Your task to perform on an android device: toggle translation in the chrome app Image 0: 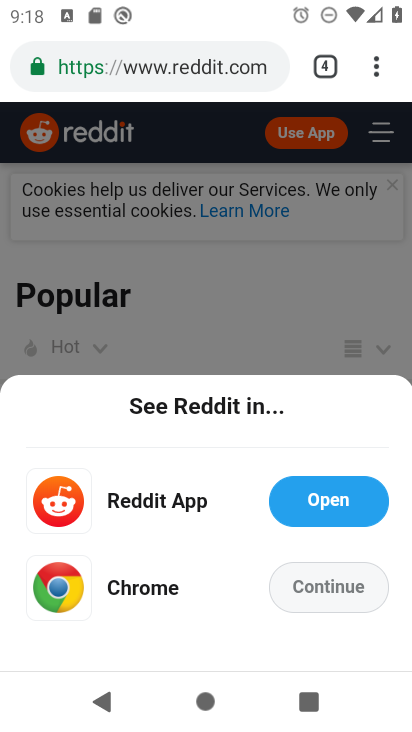
Step 0: press home button
Your task to perform on an android device: toggle translation in the chrome app Image 1: 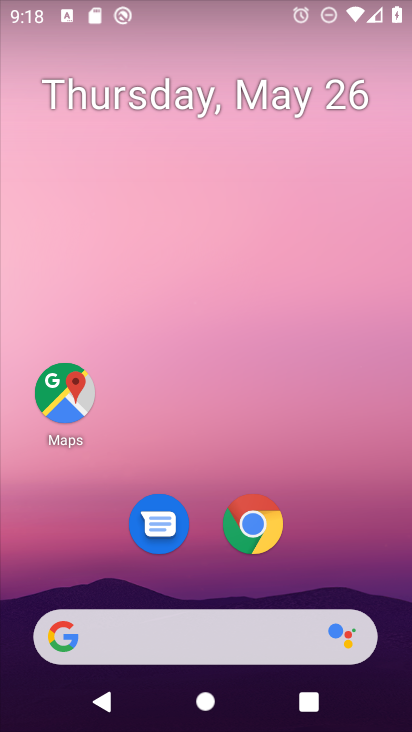
Step 1: click (254, 522)
Your task to perform on an android device: toggle translation in the chrome app Image 2: 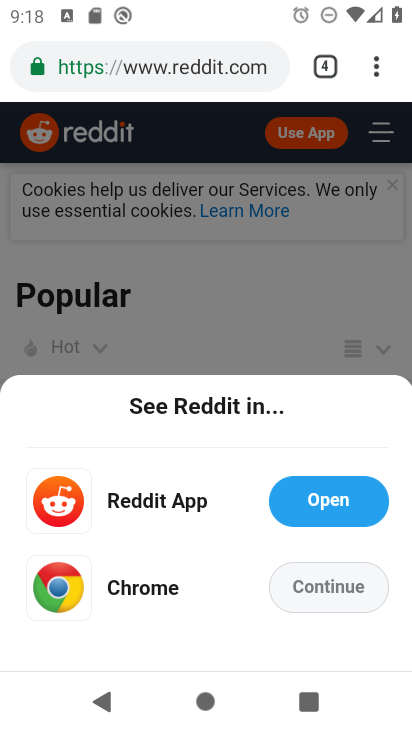
Step 2: click (373, 70)
Your task to perform on an android device: toggle translation in the chrome app Image 3: 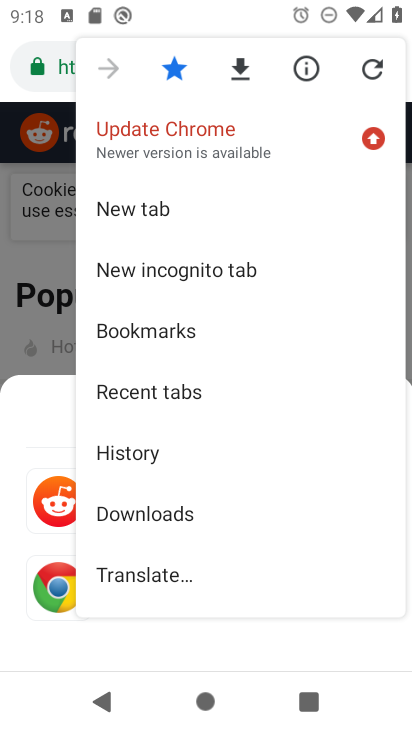
Step 3: drag from (189, 535) to (215, 202)
Your task to perform on an android device: toggle translation in the chrome app Image 4: 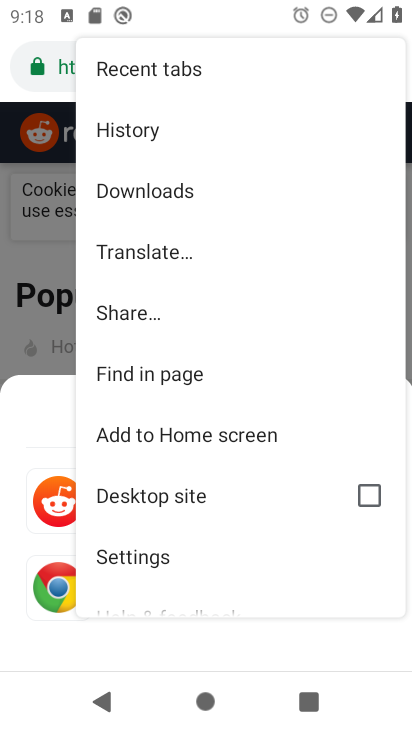
Step 4: click (160, 552)
Your task to perform on an android device: toggle translation in the chrome app Image 5: 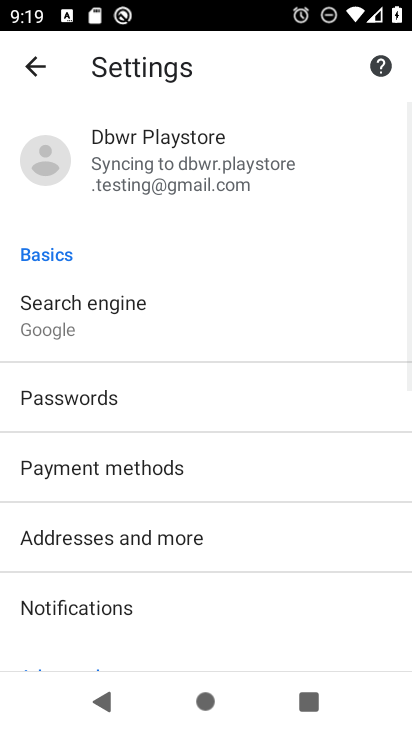
Step 5: drag from (231, 519) to (259, 160)
Your task to perform on an android device: toggle translation in the chrome app Image 6: 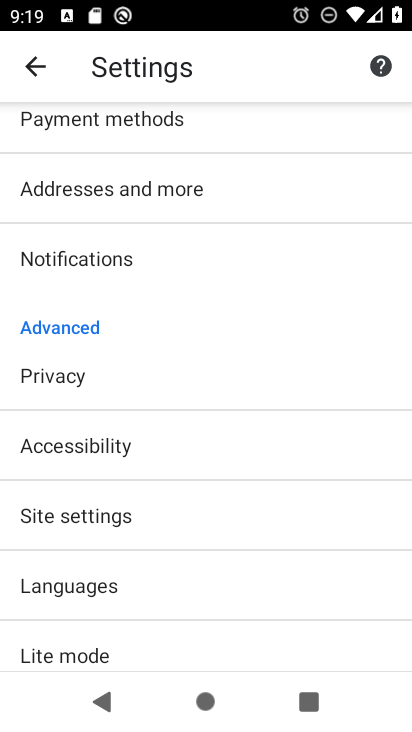
Step 6: click (192, 574)
Your task to perform on an android device: toggle translation in the chrome app Image 7: 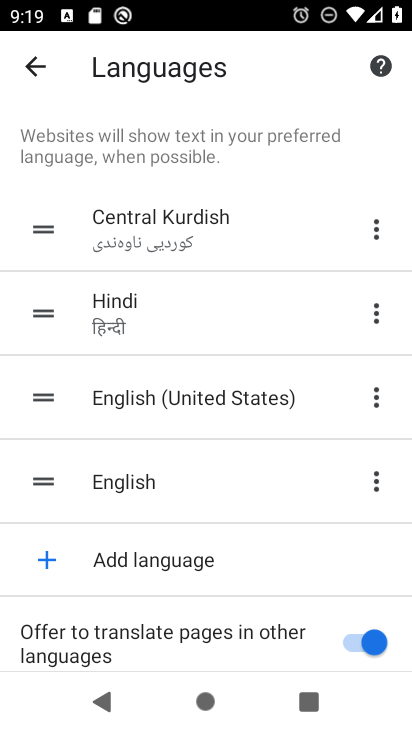
Step 7: click (358, 637)
Your task to perform on an android device: toggle translation in the chrome app Image 8: 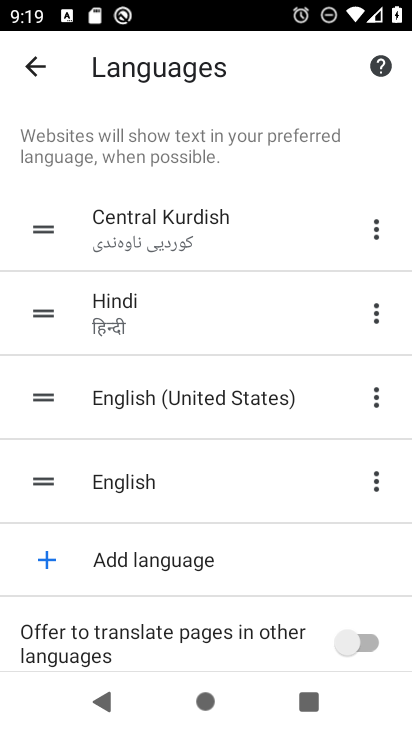
Step 8: task complete